Your task to perform on an android device: Open the map Image 0: 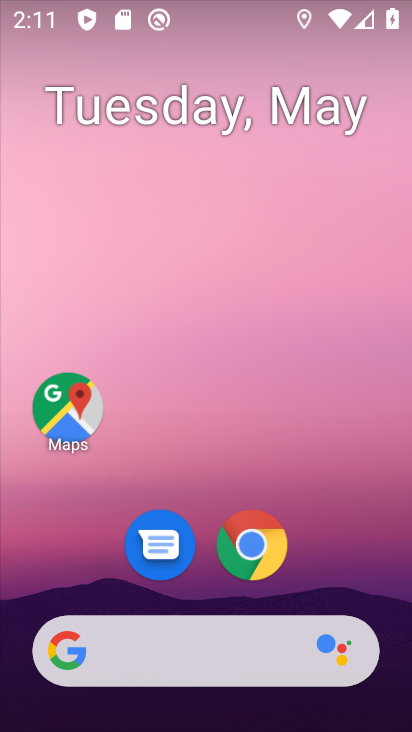
Step 0: click (58, 415)
Your task to perform on an android device: Open the map Image 1: 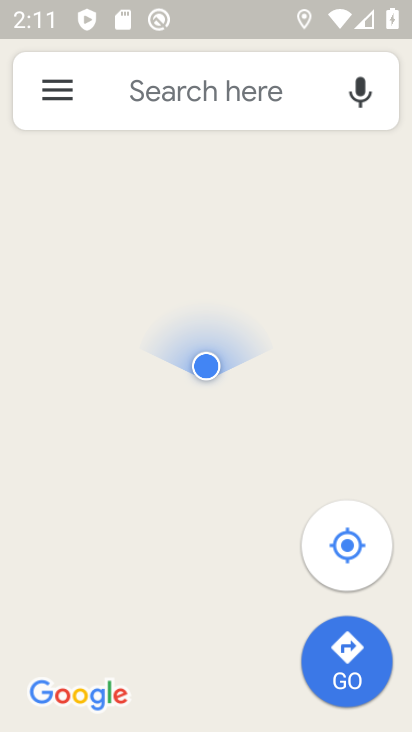
Step 1: task complete